Your task to perform on an android device: Is it going to rain this weekend? Image 0: 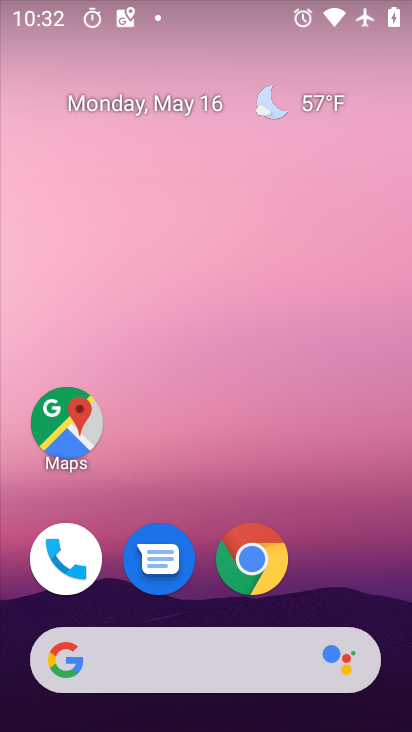
Step 0: click (325, 106)
Your task to perform on an android device: Is it going to rain this weekend? Image 1: 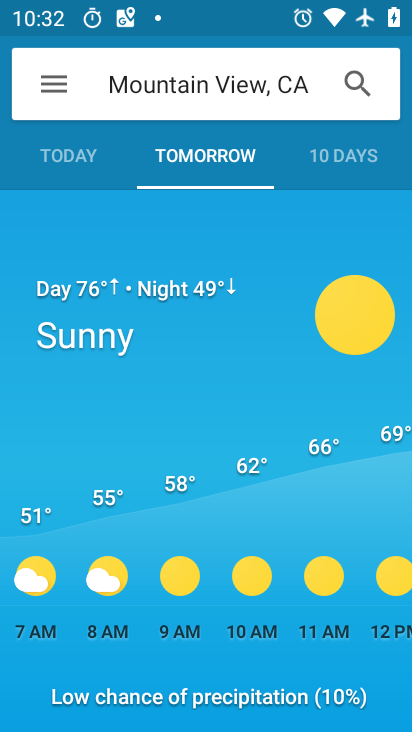
Step 1: click (351, 168)
Your task to perform on an android device: Is it going to rain this weekend? Image 2: 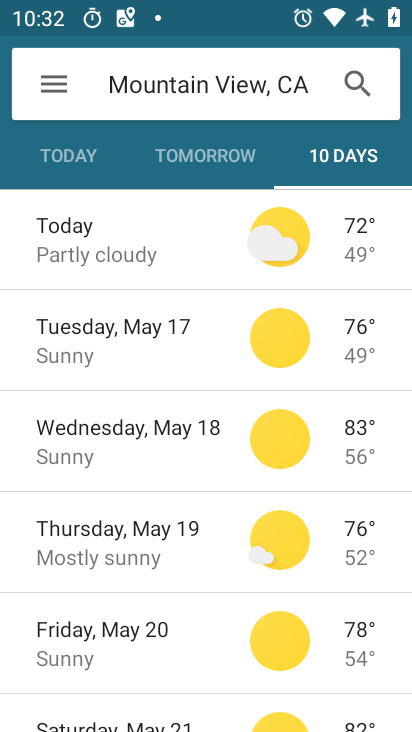
Step 2: task complete